Your task to perform on an android device: change the clock style Image 0: 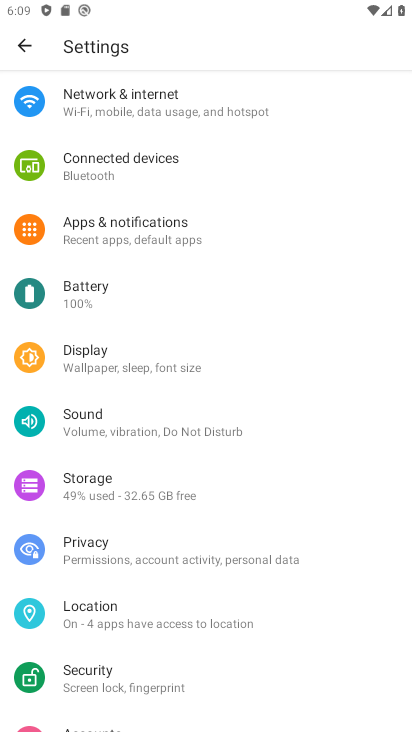
Step 0: drag from (172, 542) to (195, 153)
Your task to perform on an android device: change the clock style Image 1: 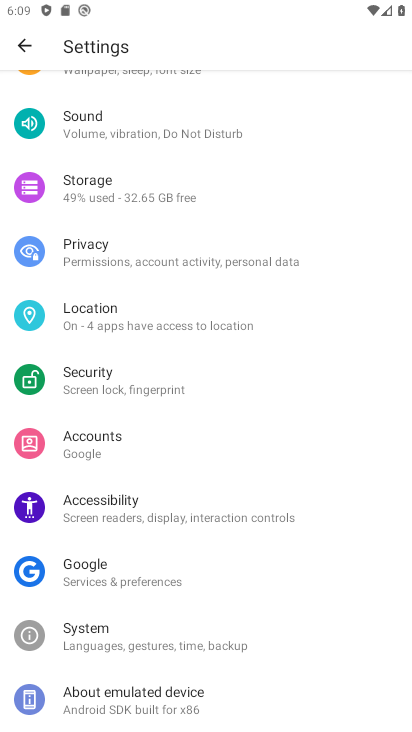
Step 1: drag from (214, 169) to (224, 531)
Your task to perform on an android device: change the clock style Image 2: 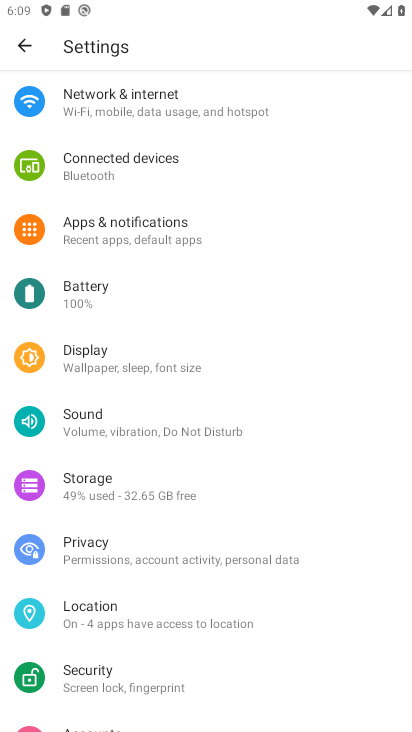
Step 2: drag from (251, 180) to (208, 536)
Your task to perform on an android device: change the clock style Image 3: 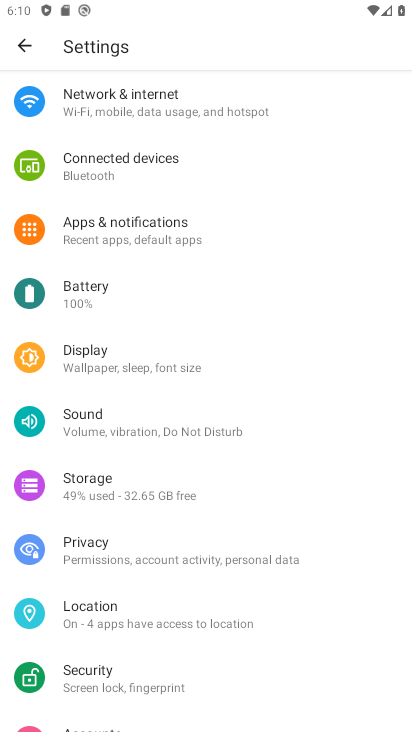
Step 3: press home button
Your task to perform on an android device: change the clock style Image 4: 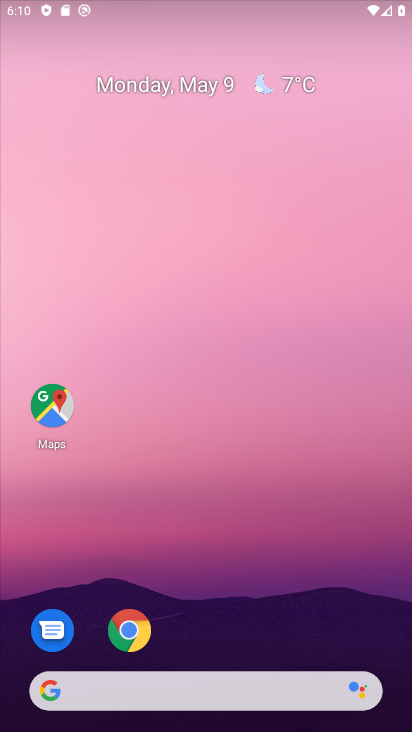
Step 4: drag from (227, 596) to (223, 55)
Your task to perform on an android device: change the clock style Image 5: 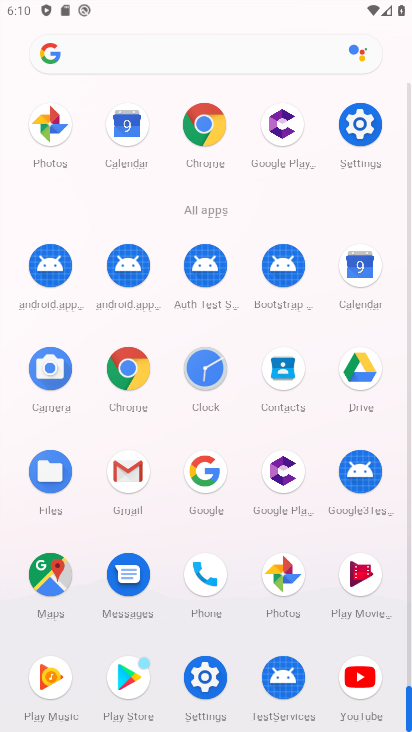
Step 5: click (193, 380)
Your task to perform on an android device: change the clock style Image 6: 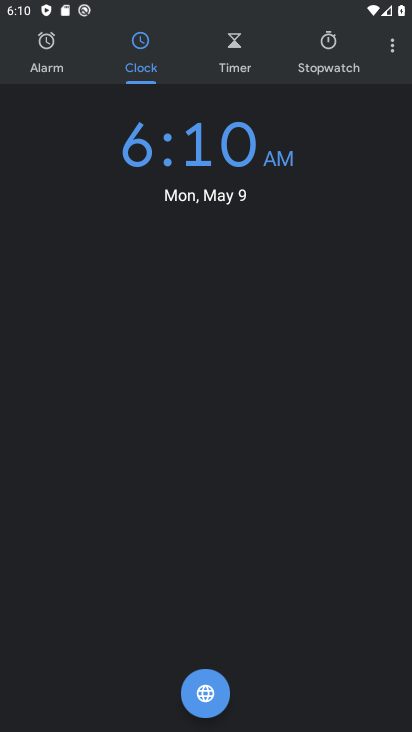
Step 6: click (395, 48)
Your task to perform on an android device: change the clock style Image 7: 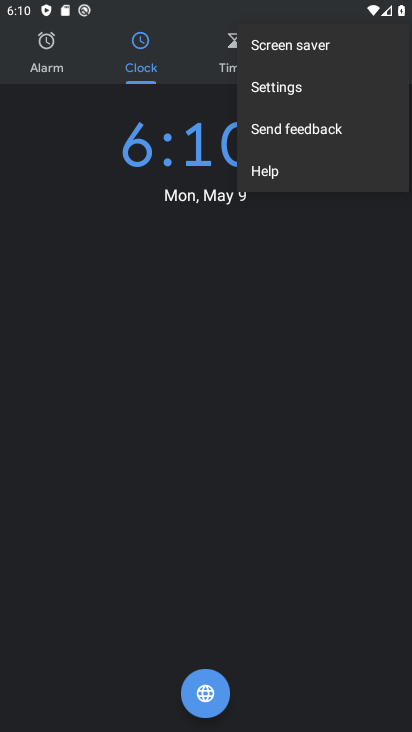
Step 7: click (301, 94)
Your task to perform on an android device: change the clock style Image 8: 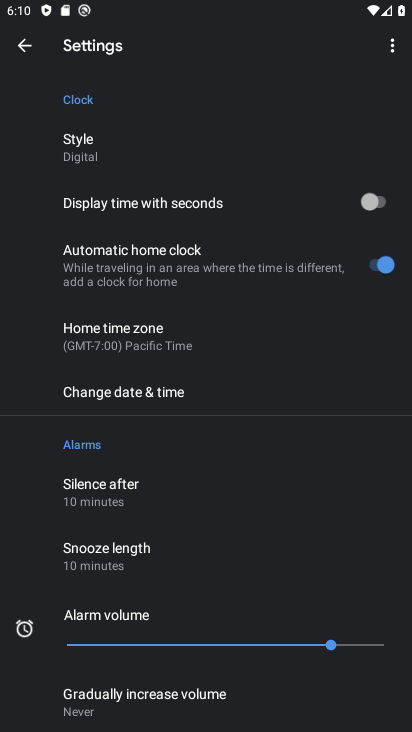
Step 8: drag from (110, 584) to (124, 197)
Your task to perform on an android device: change the clock style Image 9: 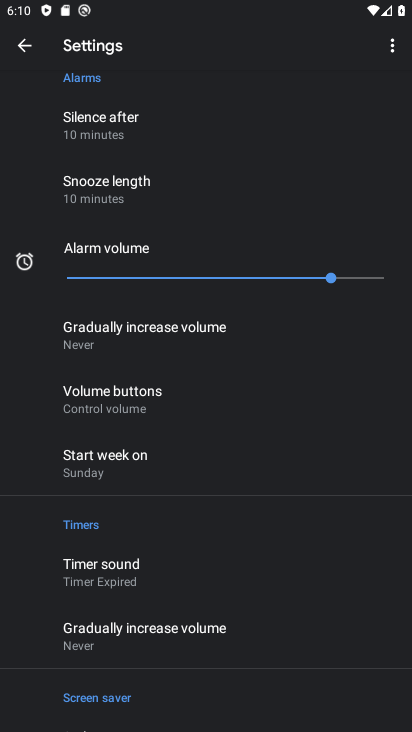
Step 9: drag from (132, 139) to (77, 683)
Your task to perform on an android device: change the clock style Image 10: 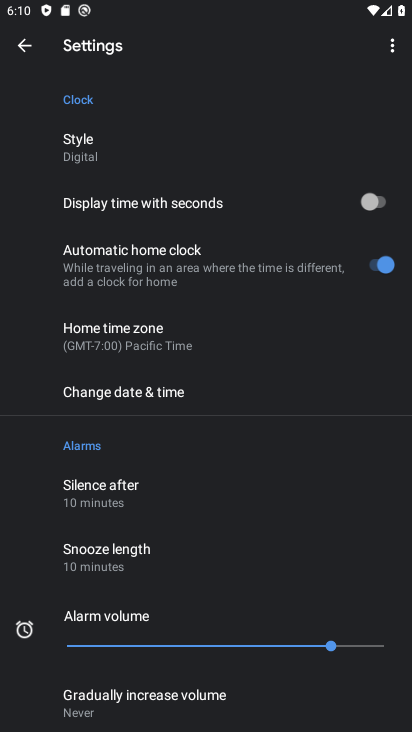
Step 10: click (102, 157)
Your task to perform on an android device: change the clock style Image 11: 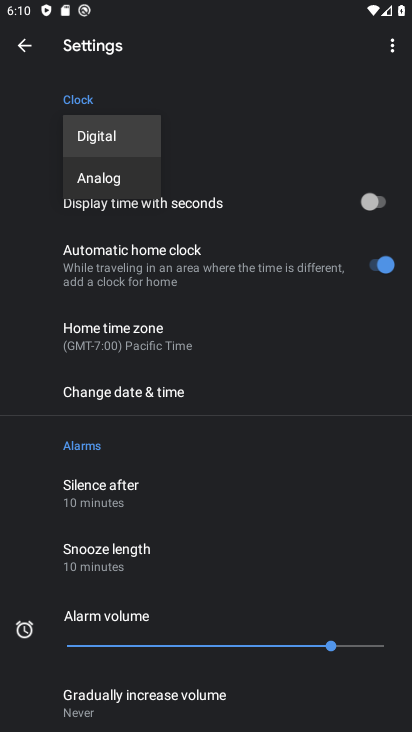
Step 11: click (102, 189)
Your task to perform on an android device: change the clock style Image 12: 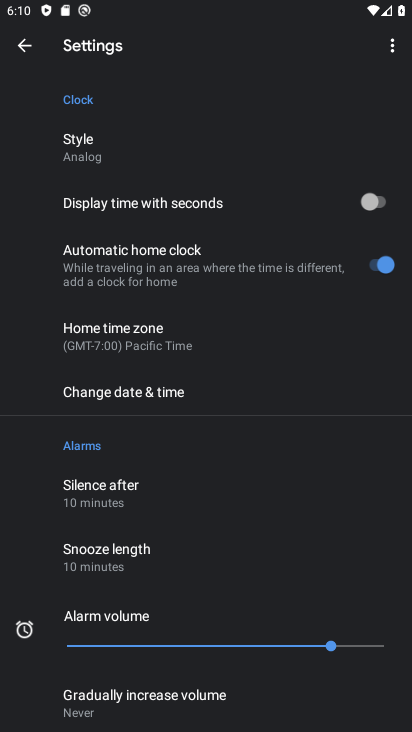
Step 12: task complete